Your task to perform on an android device: toggle notifications settings in the gmail app Image 0: 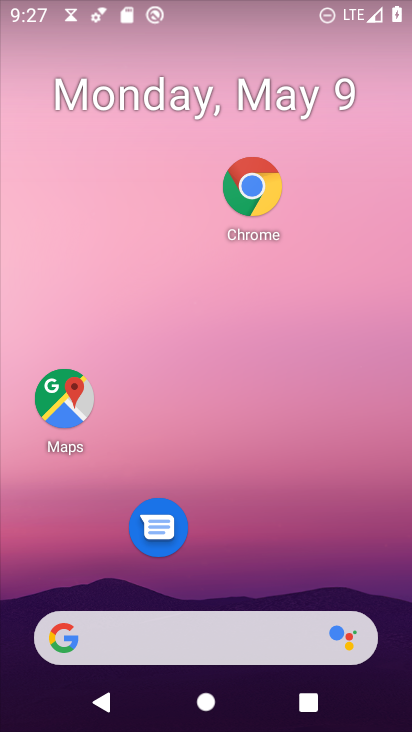
Step 0: drag from (209, 571) to (233, 68)
Your task to perform on an android device: toggle notifications settings in the gmail app Image 1: 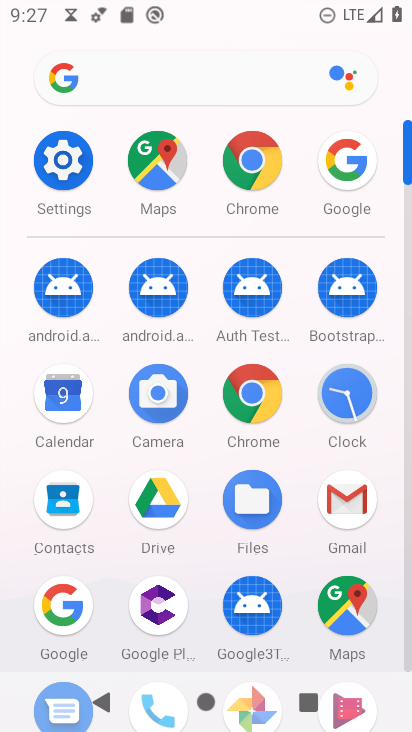
Step 1: click (338, 490)
Your task to perform on an android device: toggle notifications settings in the gmail app Image 2: 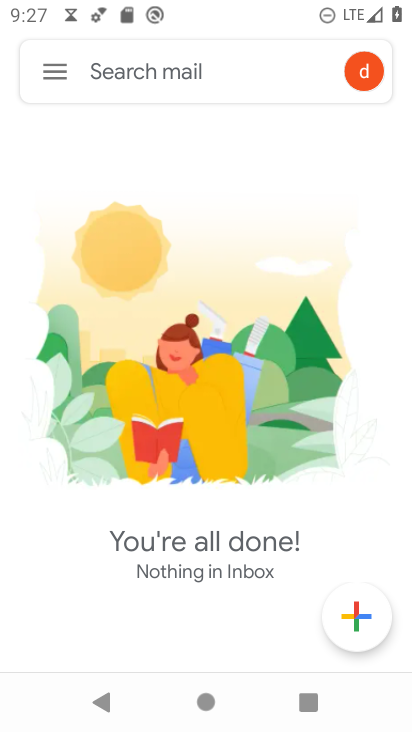
Step 2: click (55, 74)
Your task to perform on an android device: toggle notifications settings in the gmail app Image 3: 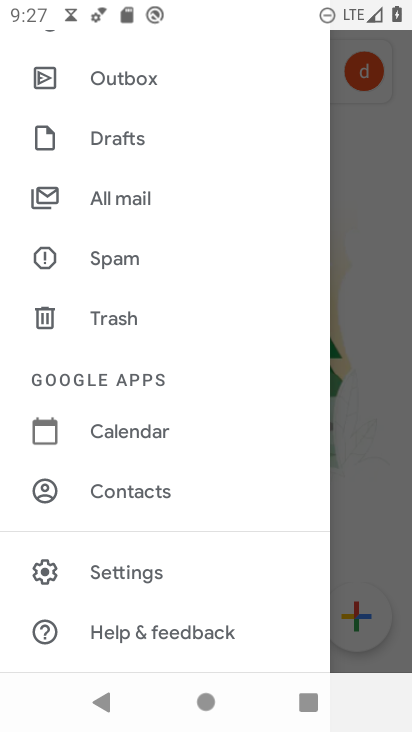
Step 3: click (178, 572)
Your task to perform on an android device: toggle notifications settings in the gmail app Image 4: 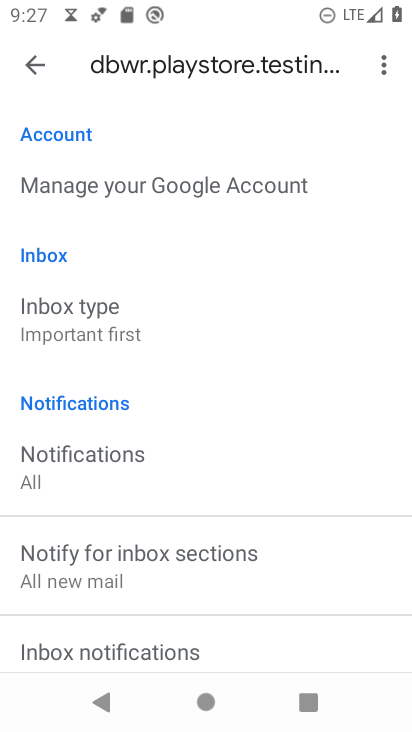
Step 4: click (49, 64)
Your task to perform on an android device: toggle notifications settings in the gmail app Image 5: 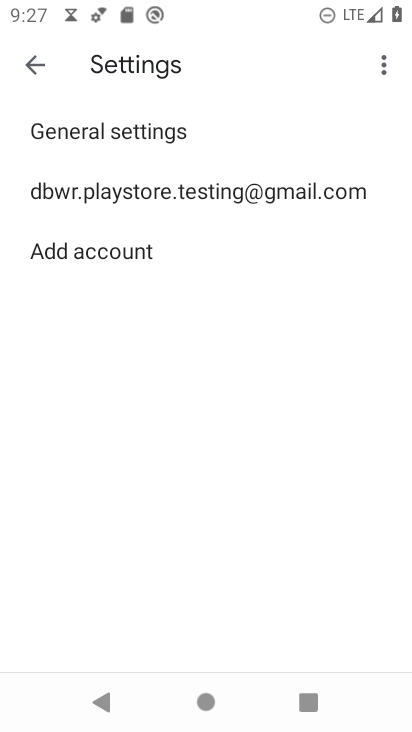
Step 5: click (192, 130)
Your task to perform on an android device: toggle notifications settings in the gmail app Image 6: 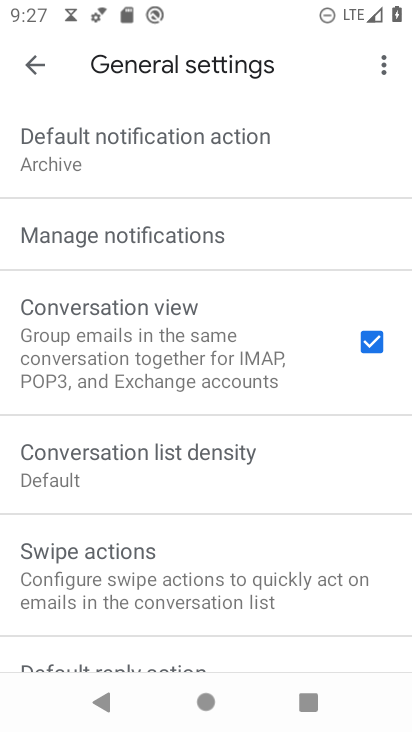
Step 6: click (232, 233)
Your task to perform on an android device: toggle notifications settings in the gmail app Image 7: 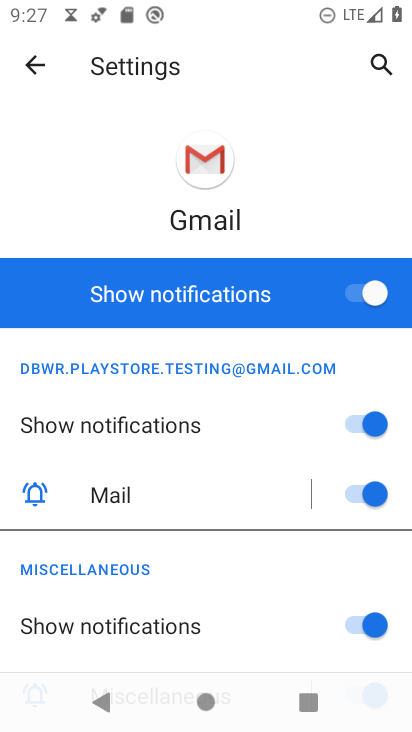
Step 7: click (356, 292)
Your task to perform on an android device: toggle notifications settings in the gmail app Image 8: 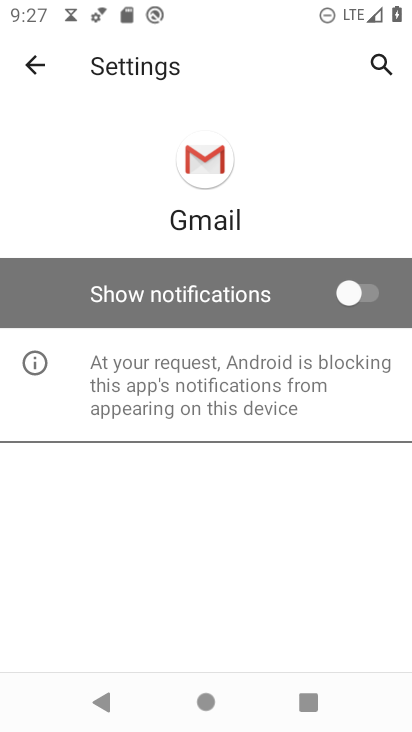
Step 8: task complete